Your task to perform on an android device: install app "Adobe Acrobat Reader: Edit PDF" Image 0: 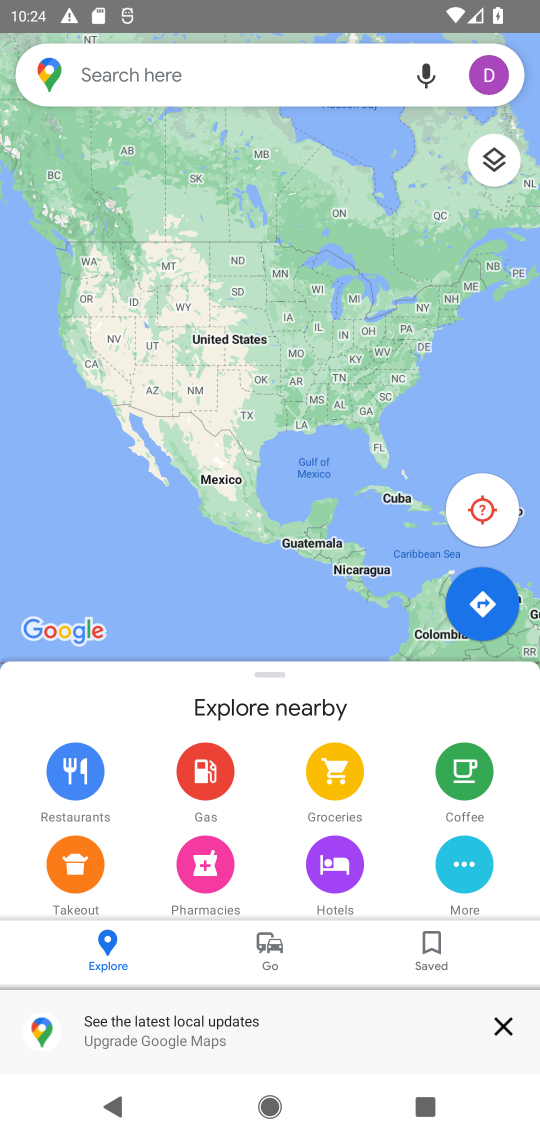
Step 0: press home button
Your task to perform on an android device: install app "Adobe Acrobat Reader: Edit PDF" Image 1: 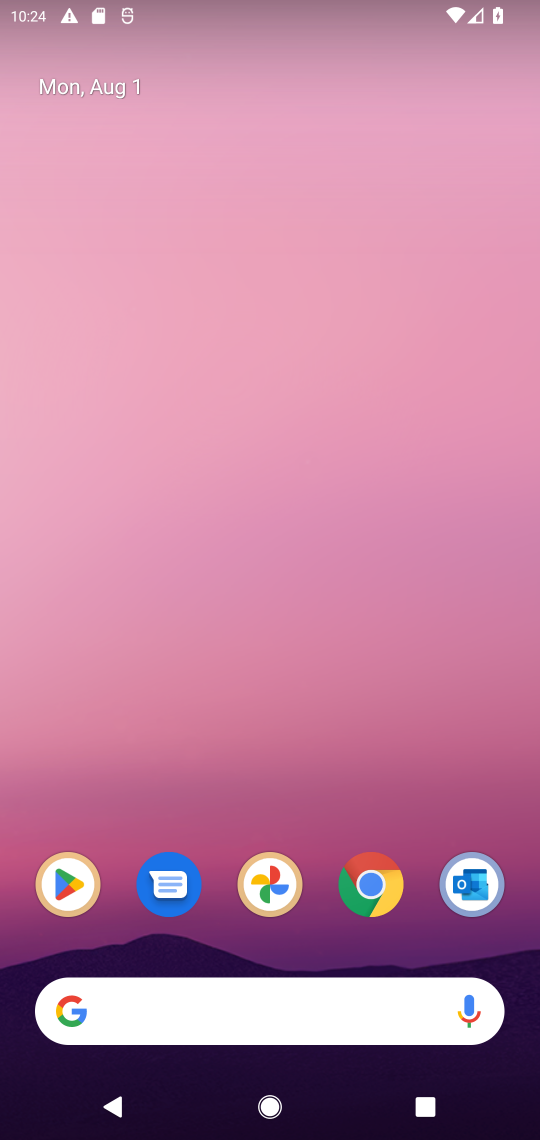
Step 1: click (43, 876)
Your task to perform on an android device: install app "Adobe Acrobat Reader: Edit PDF" Image 2: 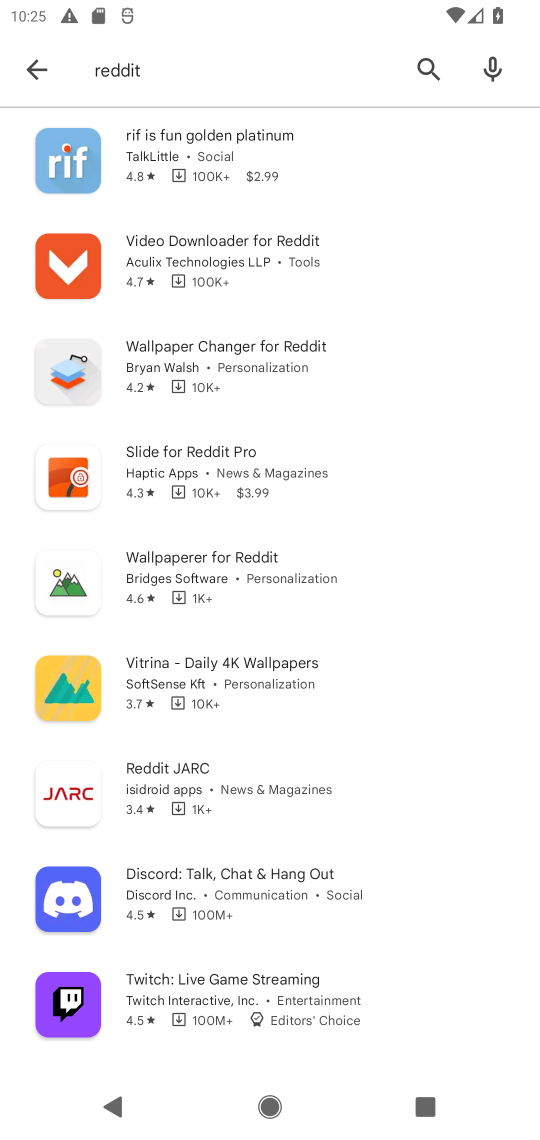
Step 2: click (419, 64)
Your task to perform on an android device: install app "Adobe Acrobat Reader: Edit PDF" Image 3: 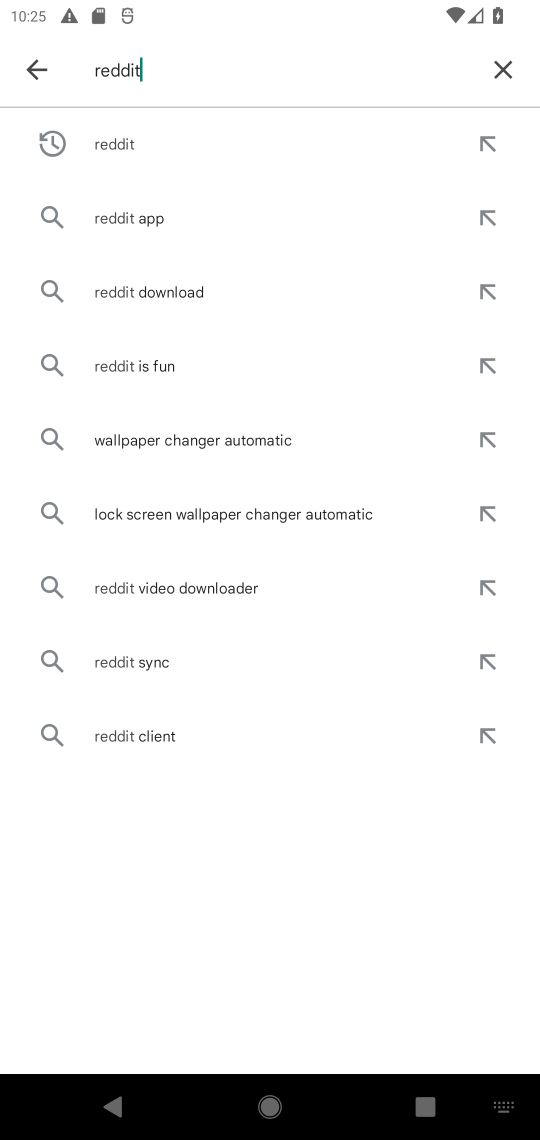
Step 3: click (516, 64)
Your task to perform on an android device: install app "Adobe Acrobat Reader: Edit PDF" Image 4: 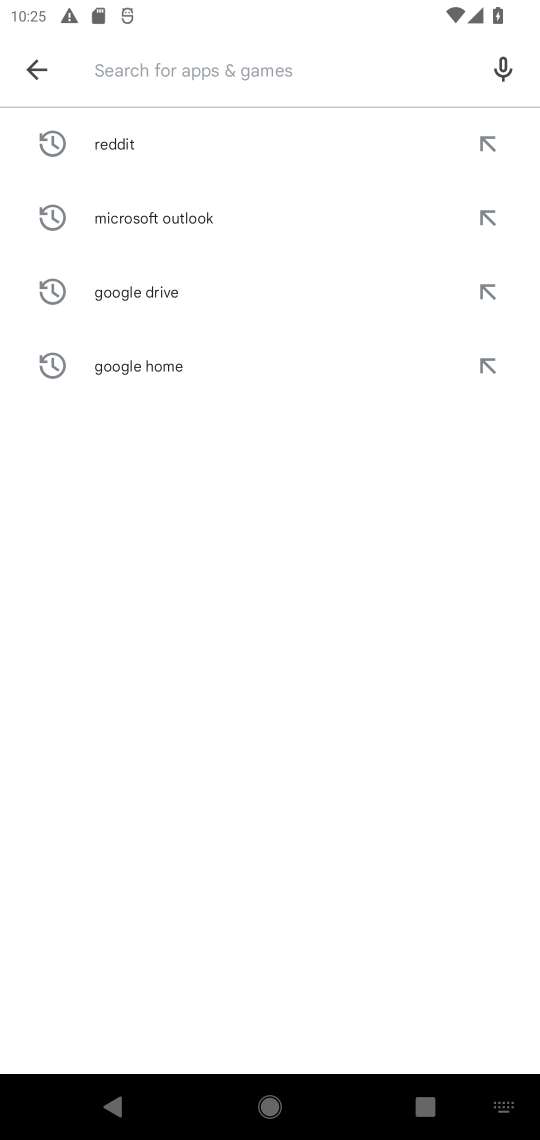
Step 4: type "adobe acrobat reader: edit pdf"
Your task to perform on an android device: install app "Adobe Acrobat Reader: Edit PDF" Image 5: 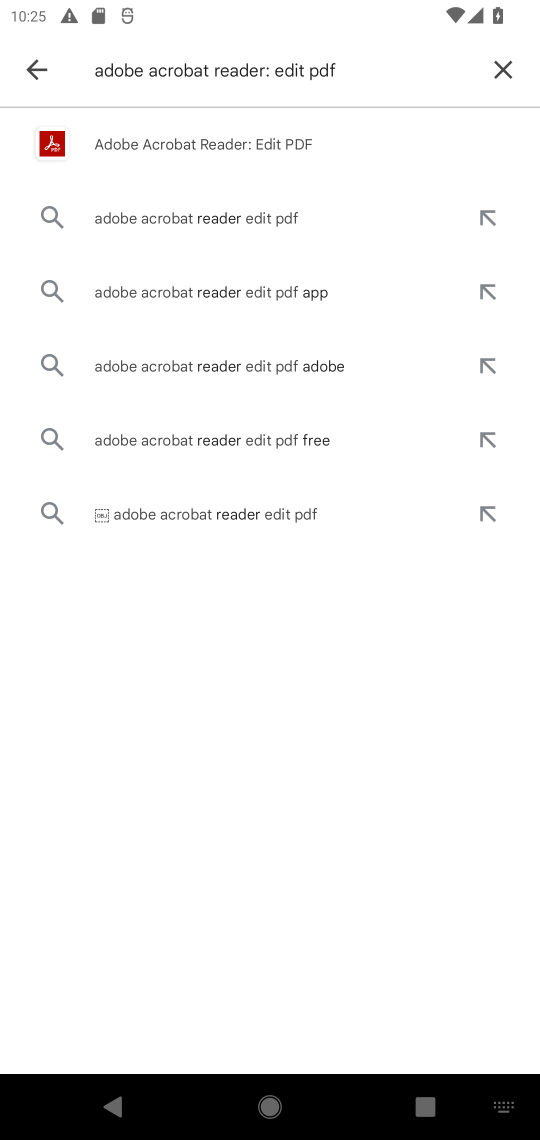
Step 5: click (291, 174)
Your task to perform on an android device: install app "Adobe Acrobat Reader: Edit PDF" Image 6: 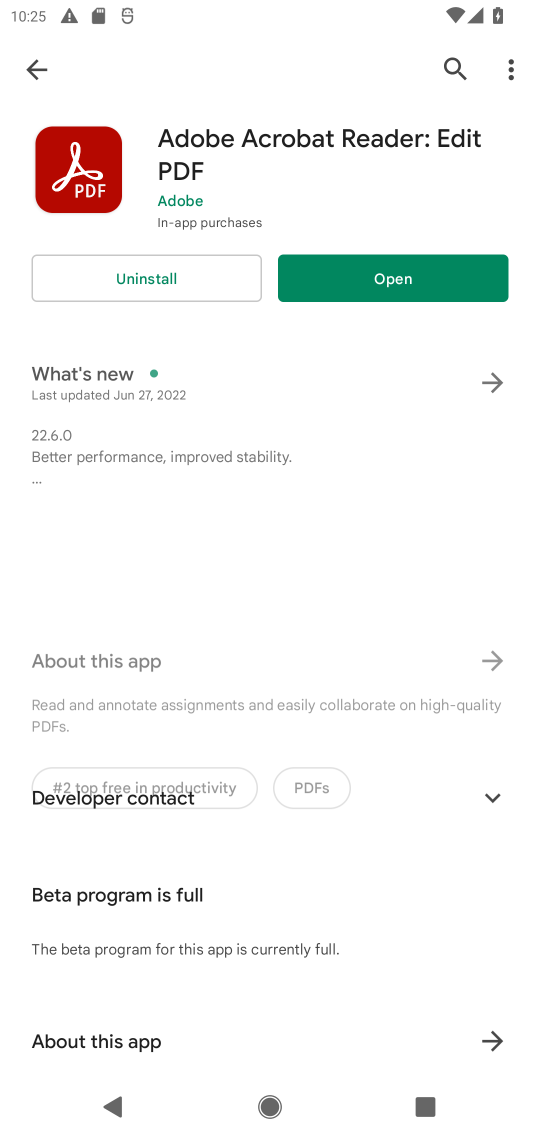
Step 6: click (354, 130)
Your task to perform on an android device: install app "Adobe Acrobat Reader: Edit PDF" Image 7: 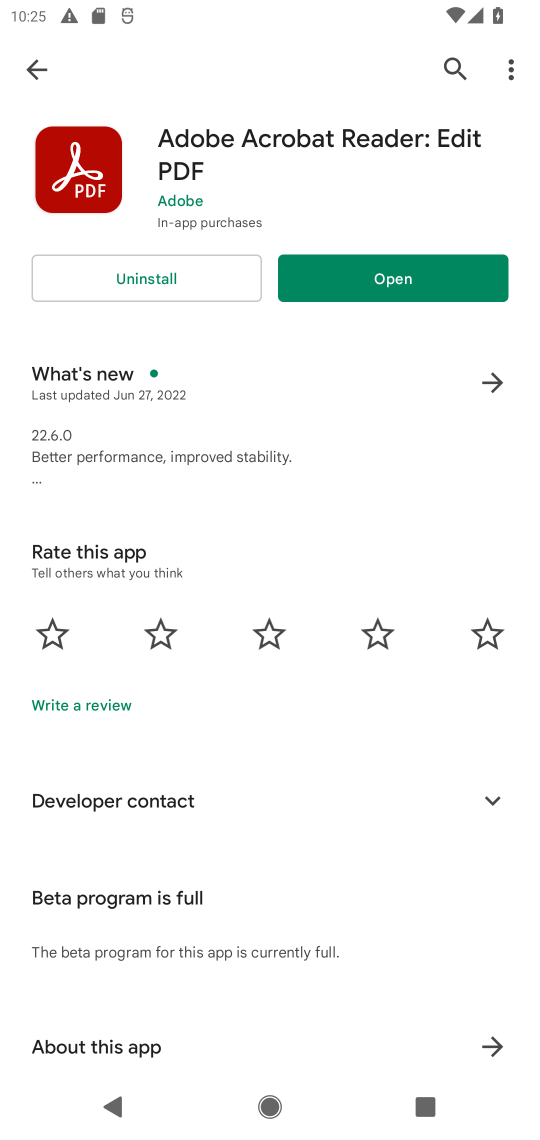
Step 7: task complete